Your task to perform on an android device: Go to calendar. Show me events next week Image 0: 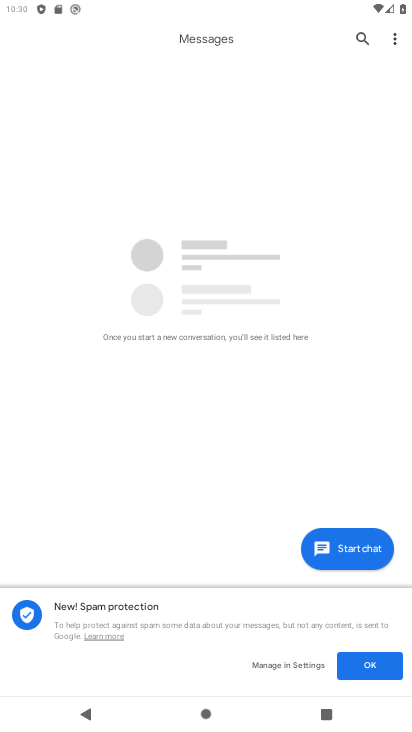
Step 0: press home button
Your task to perform on an android device: Go to calendar. Show me events next week Image 1: 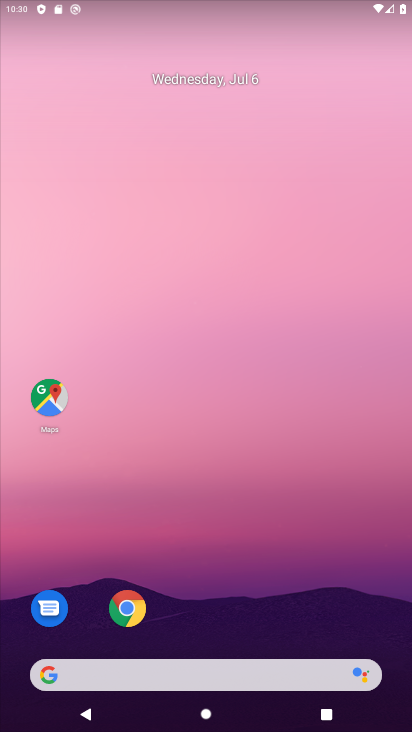
Step 1: drag from (291, 594) to (248, 97)
Your task to perform on an android device: Go to calendar. Show me events next week Image 2: 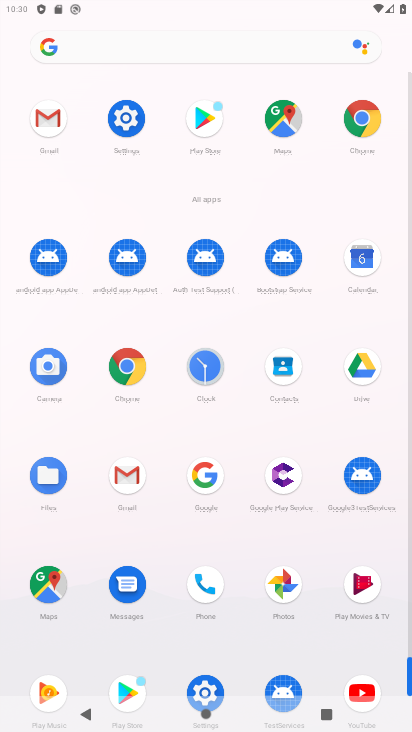
Step 2: click (358, 254)
Your task to perform on an android device: Go to calendar. Show me events next week Image 3: 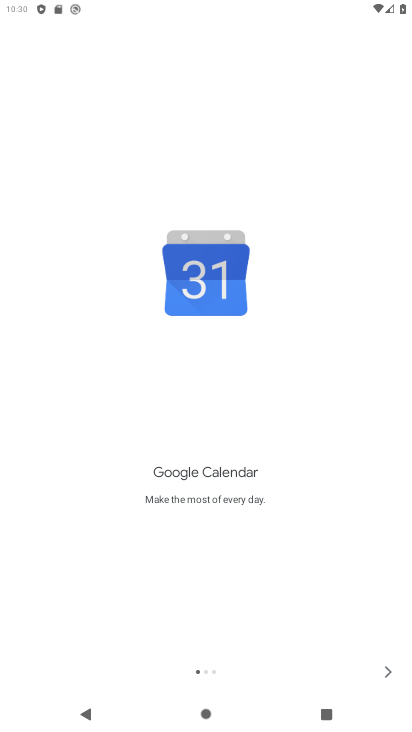
Step 3: click (386, 661)
Your task to perform on an android device: Go to calendar. Show me events next week Image 4: 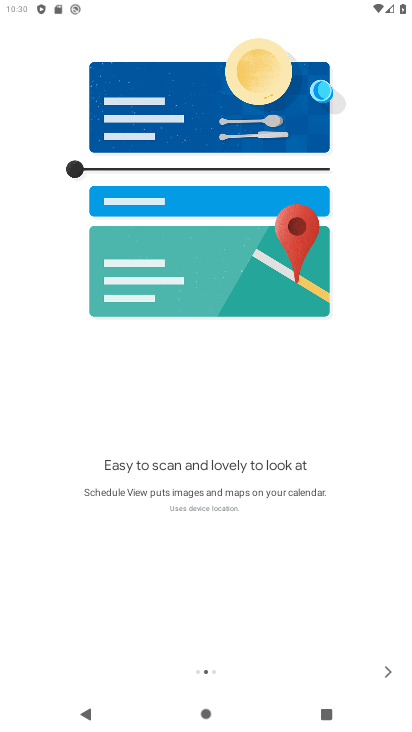
Step 4: click (386, 661)
Your task to perform on an android device: Go to calendar. Show me events next week Image 5: 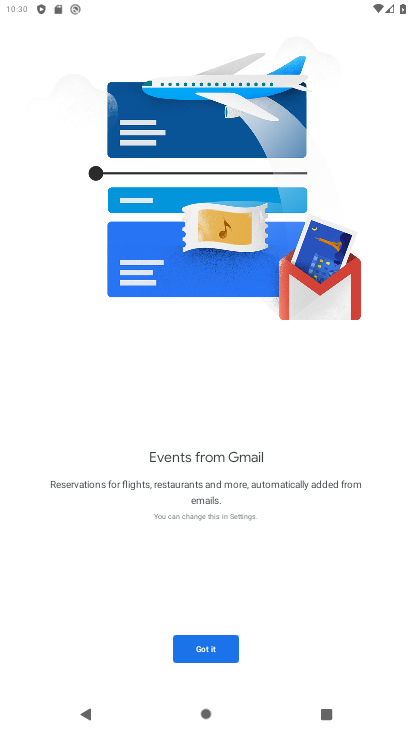
Step 5: click (196, 652)
Your task to perform on an android device: Go to calendar. Show me events next week Image 6: 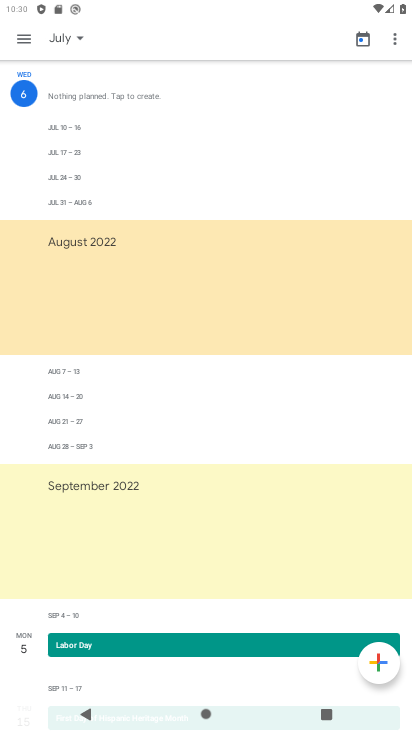
Step 6: click (26, 38)
Your task to perform on an android device: Go to calendar. Show me events next week Image 7: 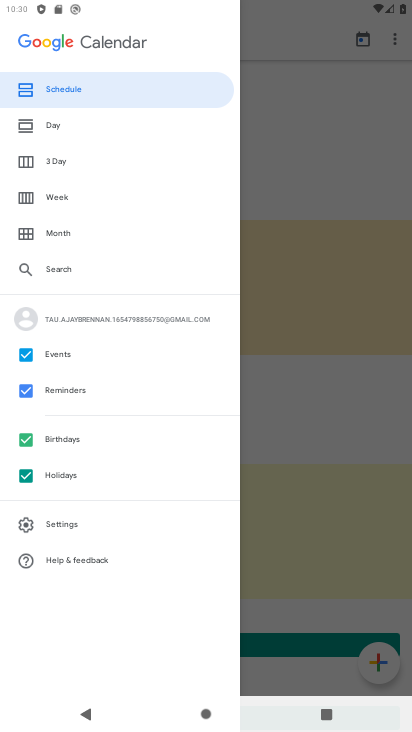
Step 7: click (124, 93)
Your task to perform on an android device: Go to calendar. Show me events next week Image 8: 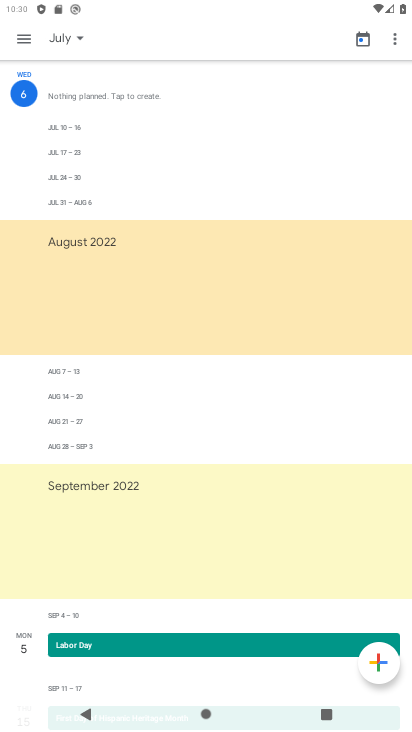
Step 8: drag from (213, 561) to (191, 707)
Your task to perform on an android device: Go to calendar. Show me events next week Image 9: 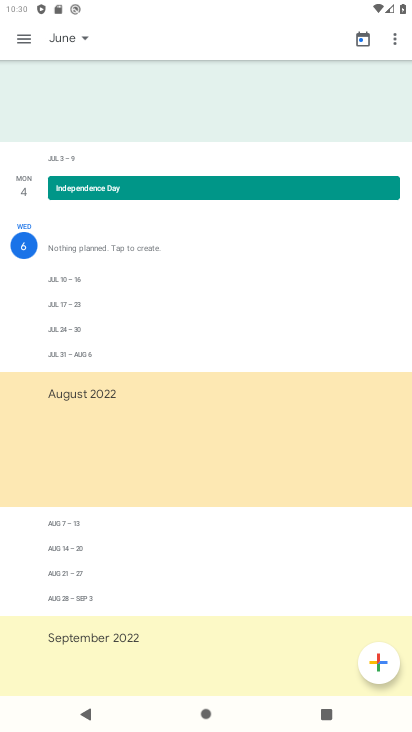
Step 9: click (75, 42)
Your task to perform on an android device: Go to calendar. Show me events next week Image 10: 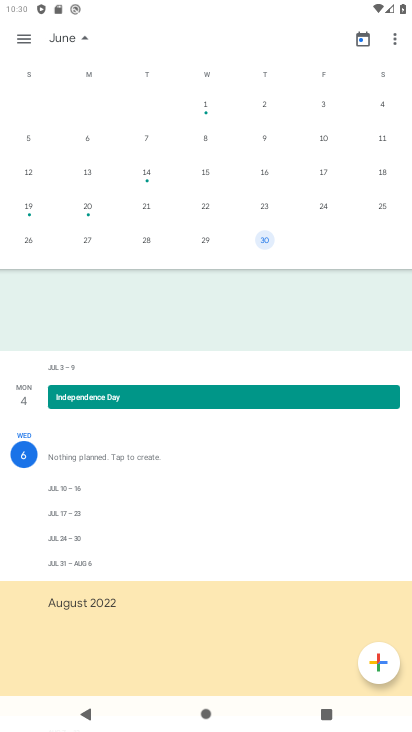
Step 10: drag from (342, 159) to (0, 104)
Your task to perform on an android device: Go to calendar. Show me events next week Image 11: 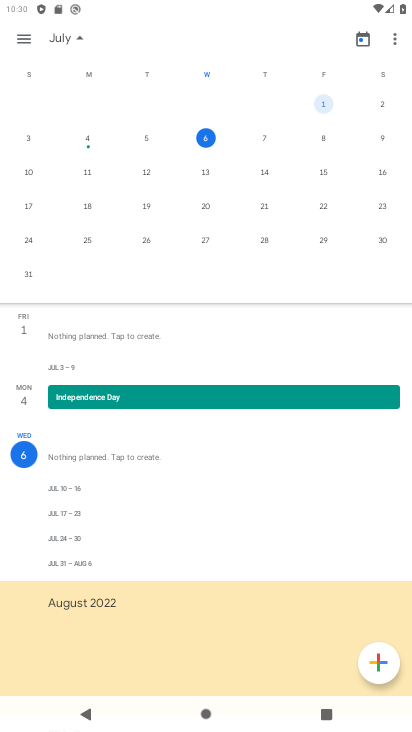
Step 11: click (208, 131)
Your task to perform on an android device: Go to calendar. Show me events next week Image 12: 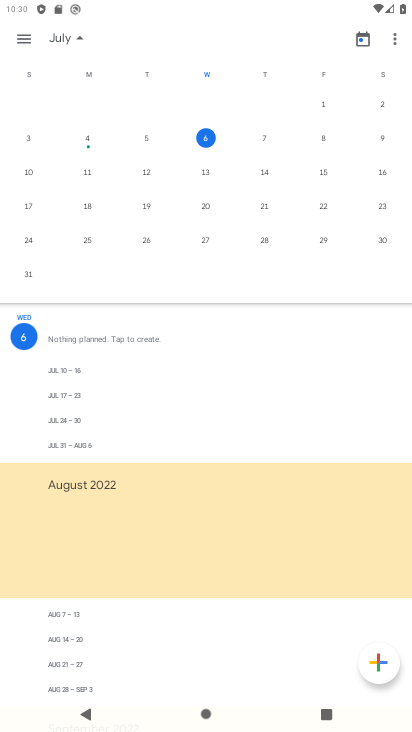
Step 12: task complete